Your task to perform on an android device: change text size in settings app Image 0: 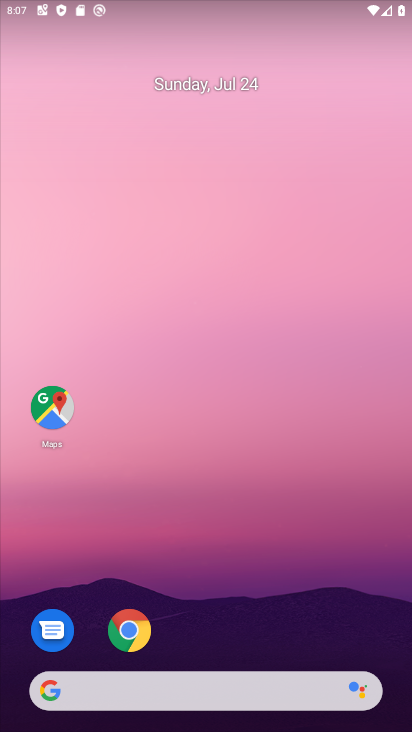
Step 0: drag from (174, 638) to (170, 126)
Your task to perform on an android device: change text size in settings app Image 1: 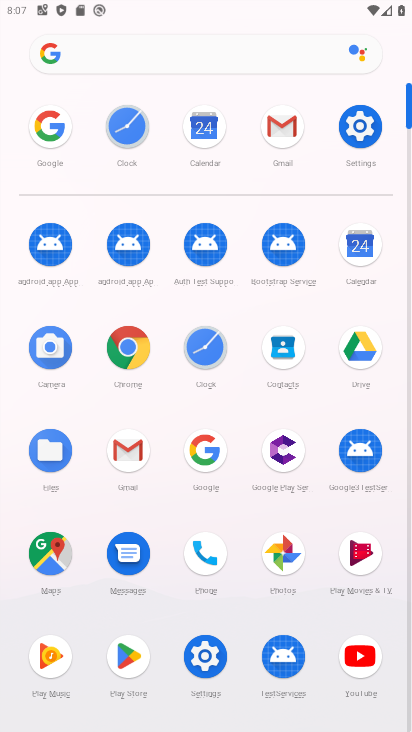
Step 1: click (359, 137)
Your task to perform on an android device: change text size in settings app Image 2: 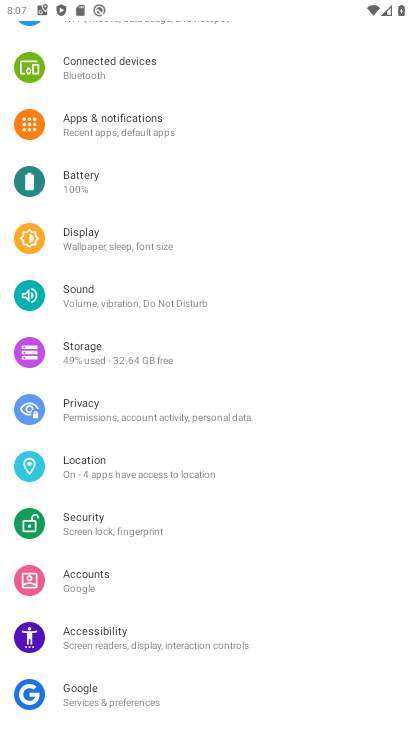
Step 2: click (131, 239)
Your task to perform on an android device: change text size in settings app Image 3: 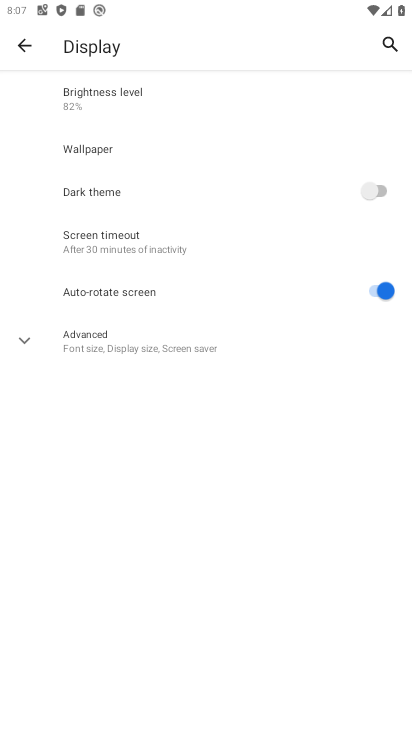
Step 3: click (133, 349)
Your task to perform on an android device: change text size in settings app Image 4: 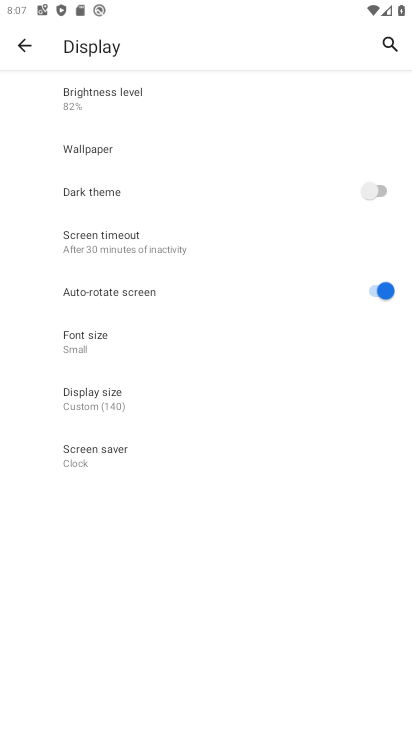
Step 4: click (104, 342)
Your task to perform on an android device: change text size in settings app Image 5: 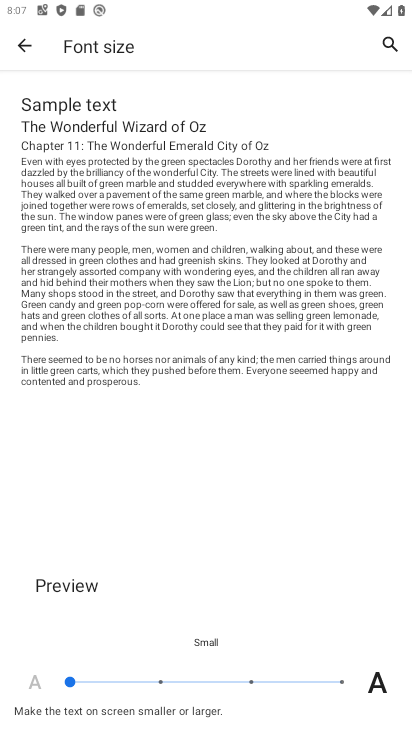
Step 5: click (347, 678)
Your task to perform on an android device: change text size in settings app Image 6: 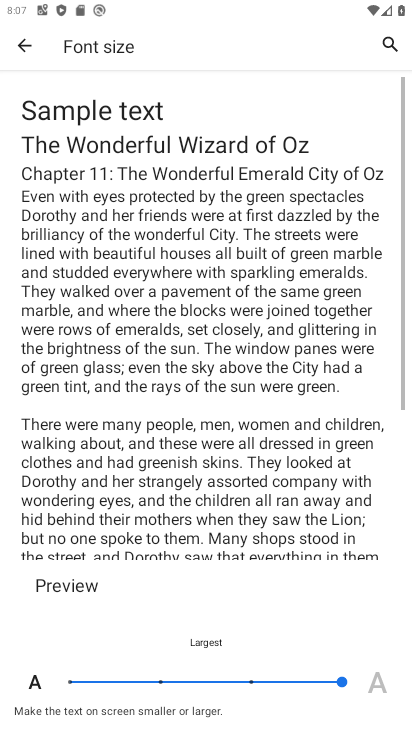
Step 6: task complete